Your task to perform on an android device: change the clock display to digital Image 0: 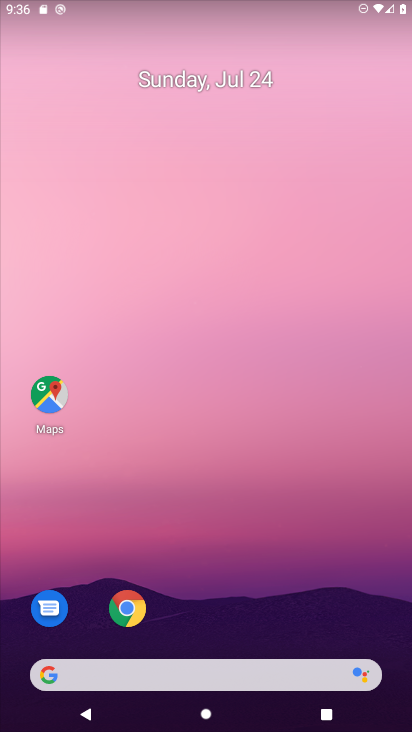
Step 0: drag from (208, 498) to (197, 242)
Your task to perform on an android device: change the clock display to digital Image 1: 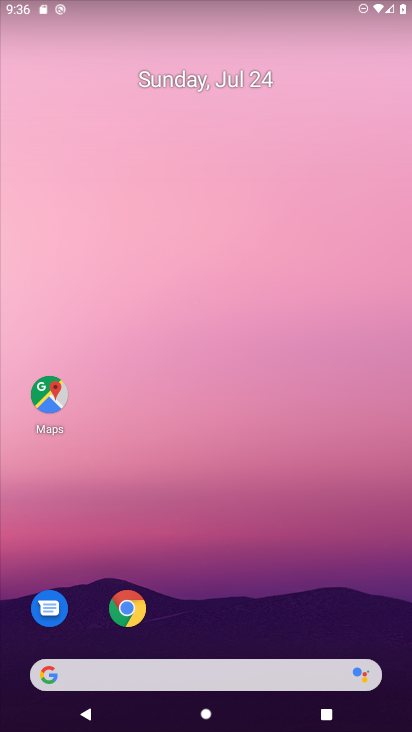
Step 1: drag from (188, 425) to (218, 102)
Your task to perform on an android device: change the clock display to digital Image 2: 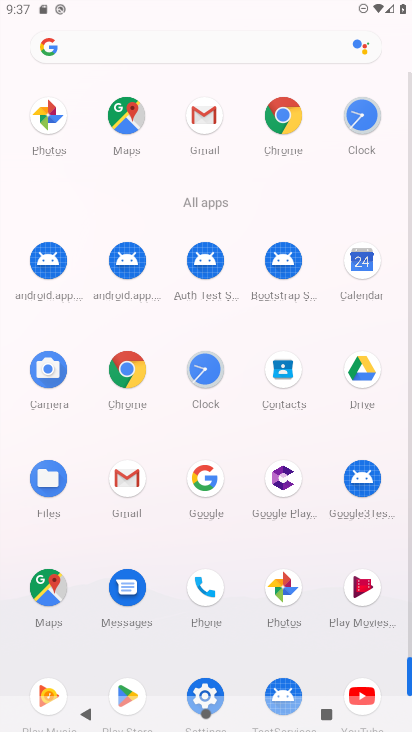
Step 2: click (197, 363)
Your task to perform on an android device: change the clock display to digital Image 3: 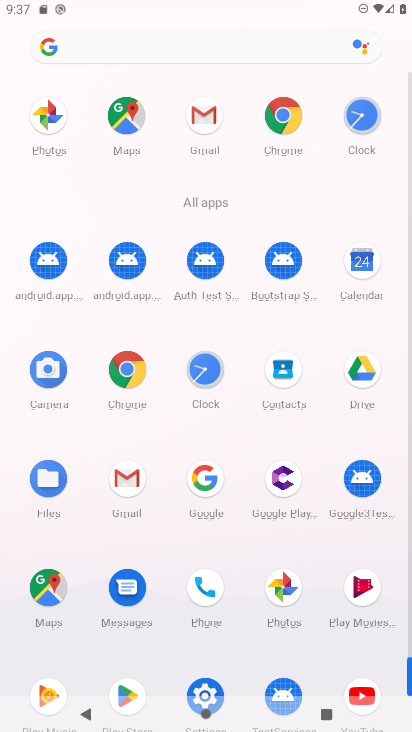
Step 3: click (197, 363)
Your task to perform on an android device: change the clock display to digital Image 4: 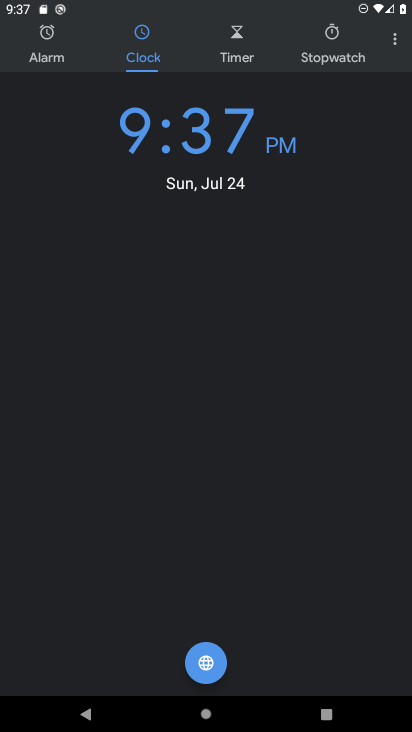
Step 4: drag from (397, 49) to (328, 74)
Your task to perform on an android device: change the clock display to digital Image 5: 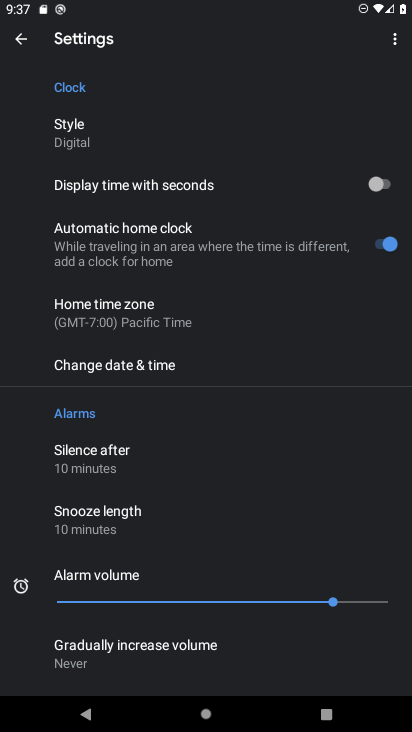
Step 5: click (102, 139)
Your task to perform on an android device: change the clock display to digital Image 6: 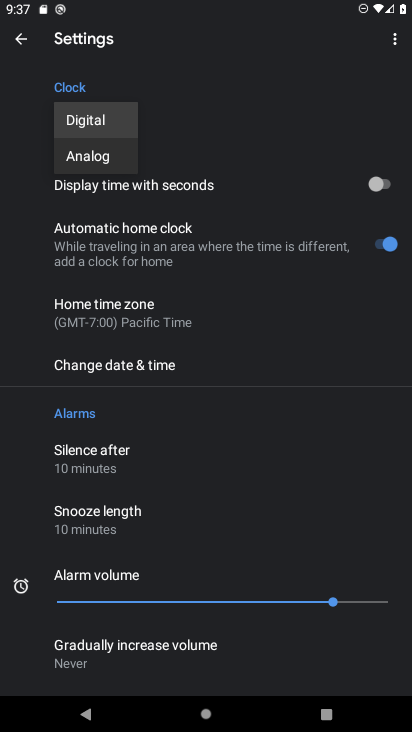
Step 6: click (85, 131)
Your task to perform on an android device: change the clock display to digital Image 7: 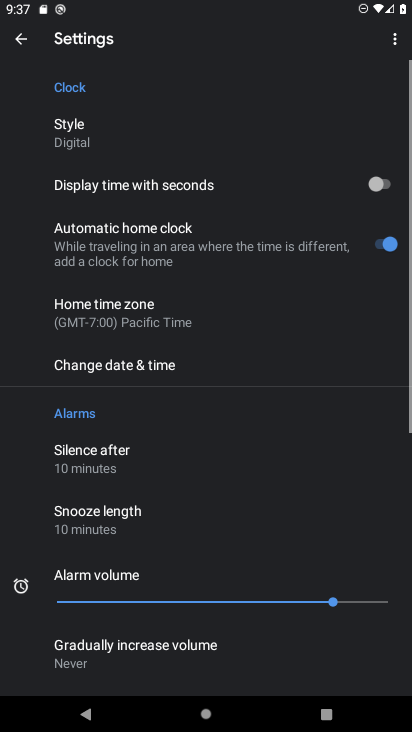
Step 7: task complete